Your task to perform on an android device: Google the capital of Brazil Image 0: 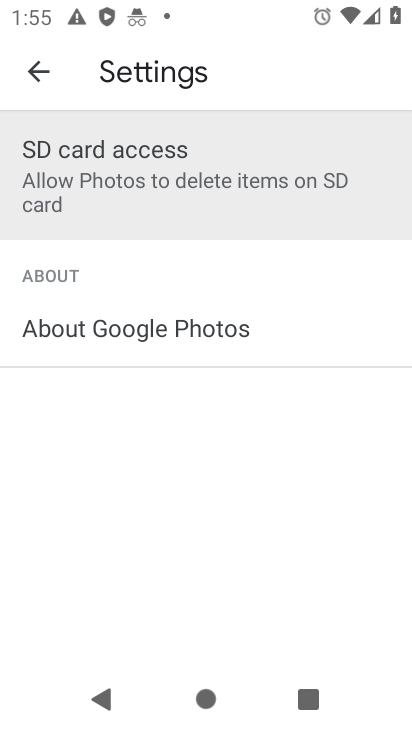
Step 0: press home button
Your task to perform on an android device: Google the capital of Brazil Image 1: 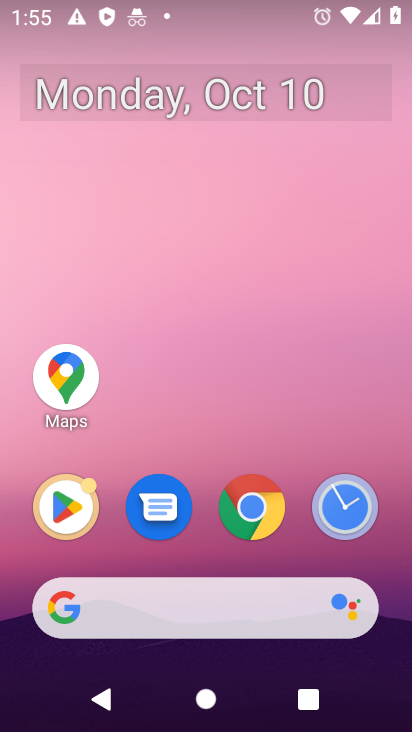
Step 1: click (255, 594)
Your task to perform on an android device: Google the capital of Brazil Image 2: 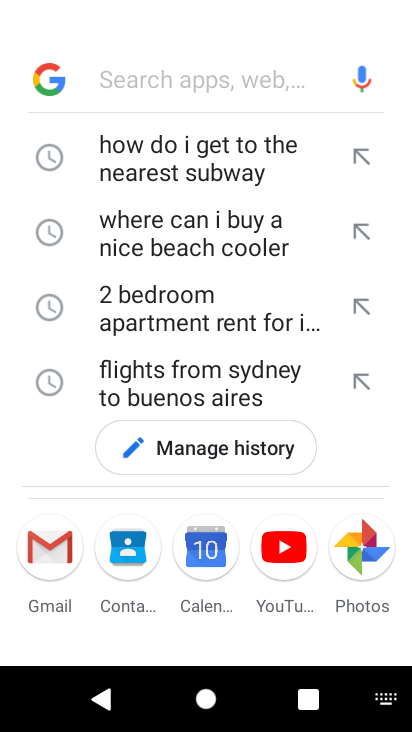
Step 2: type "Google the capital of Brazil"
Your task to perform on an android device: Google the capital of Brazil Image 3: 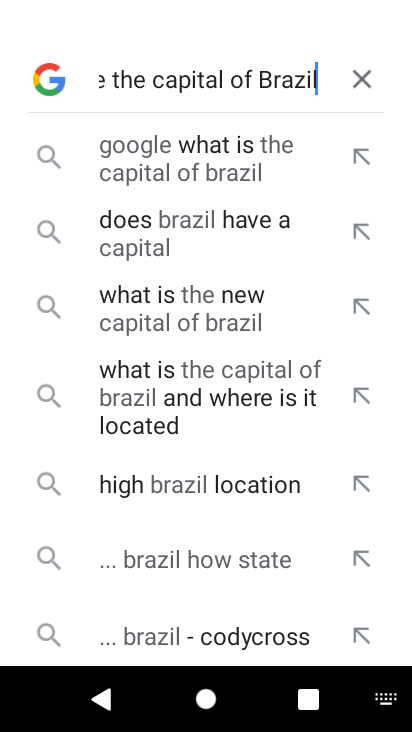
Step 3: press enter
Your task to perform on an android device: Google the capital of Brazil Image 4: 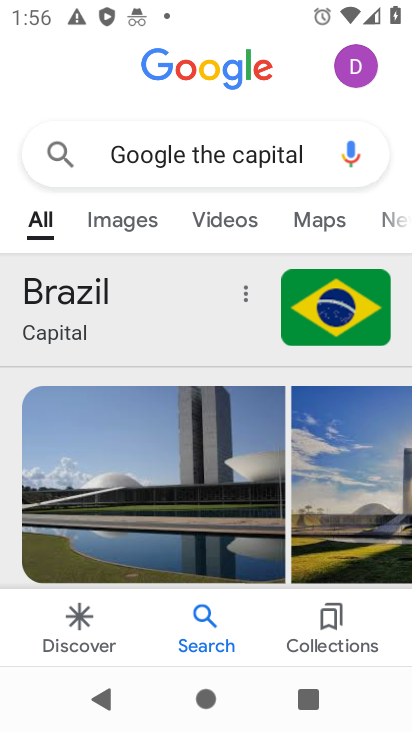
Step 4: press home button
Your task to perform on an android device: Google the capital of Brazil Image 5: 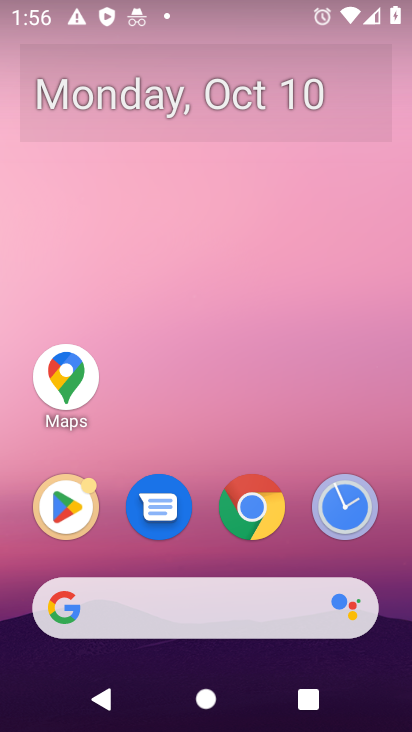
Step 5: click (232, 607)
Your task to perform on an android device: Google the capital of Brazil Image 6: 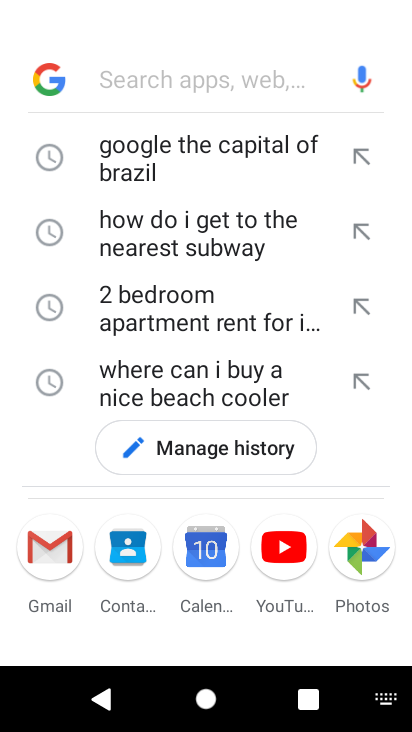
Step 6: type "Google the capital of Brazil"
Your task to perform on an android device: Google the capital of Brazil Image 7: 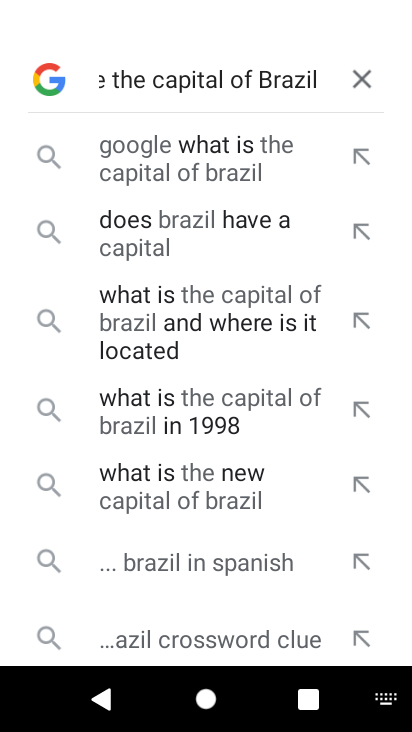
Step 7: press enter
Your task to perform on an android device: Google the capital of Brazil Image 8: 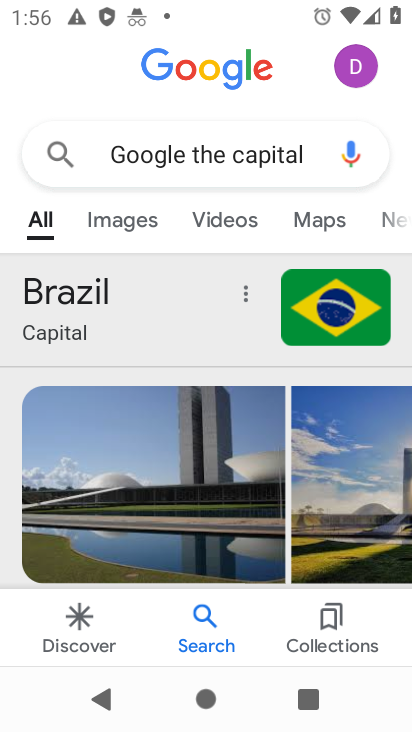
Step 8: task complete